Your task to perform on an android device: Open Yahoo.com Image 0: 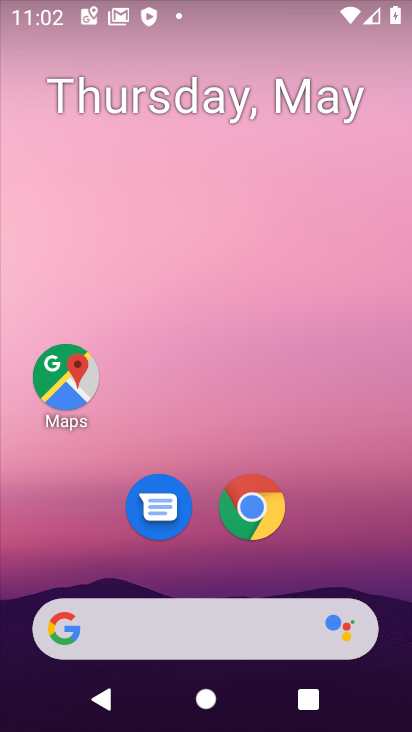
Step 0: click (175, 628)
Your task to perform on an android device: Open Yahoo.com Image 1: 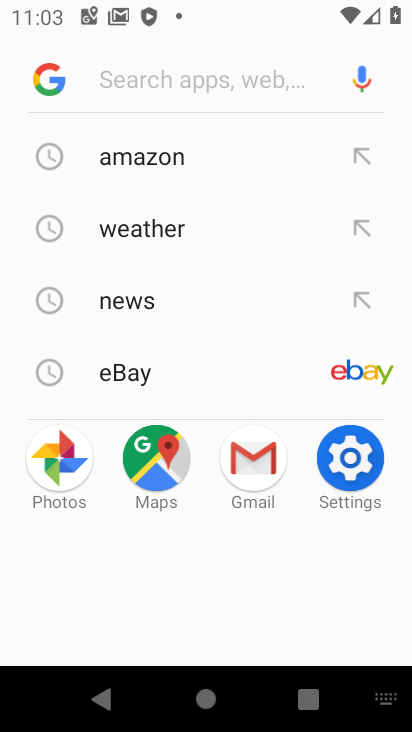
Step 1: type "yahoo.com"
Your task to perform on an android device: Open Yahoo.com Image 2: 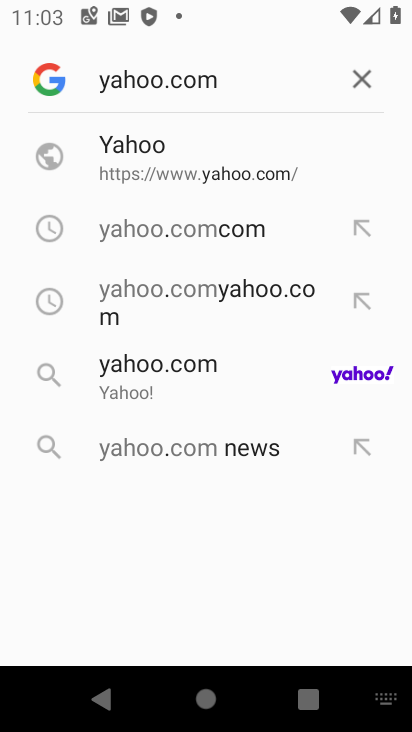
Step 2: click (232, 147)
Your task to perform on an android device: Open Yahoo.com Image 3: 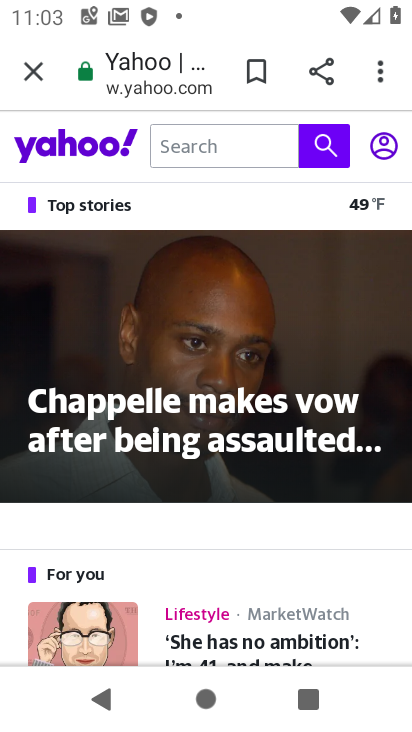
Step 3: task complete